Your task to perform on an android device: Open internet settings Image 0: 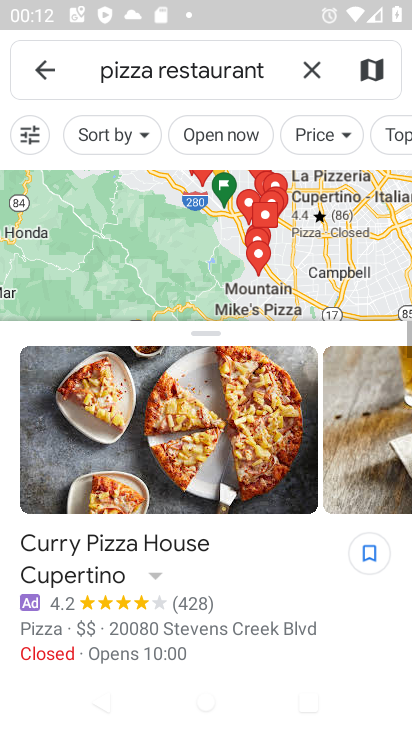
Step 0: press home button
Your task to perform on an android device: Open internet settings Image 1: 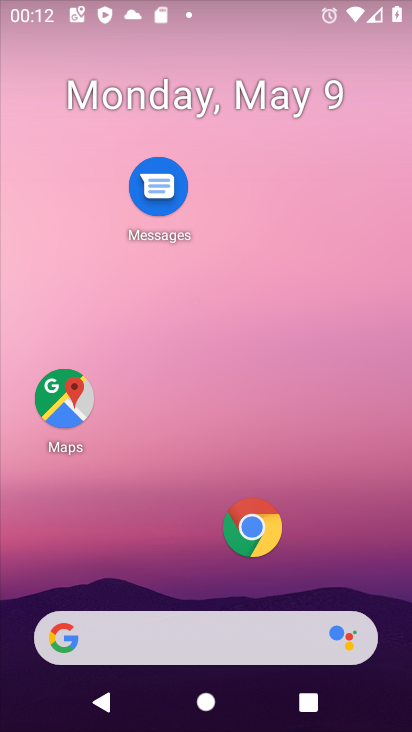
Step 1: drag from (180, 527) to (253, 18)
Your task to perform on an android device: Open internet settings Image 2: 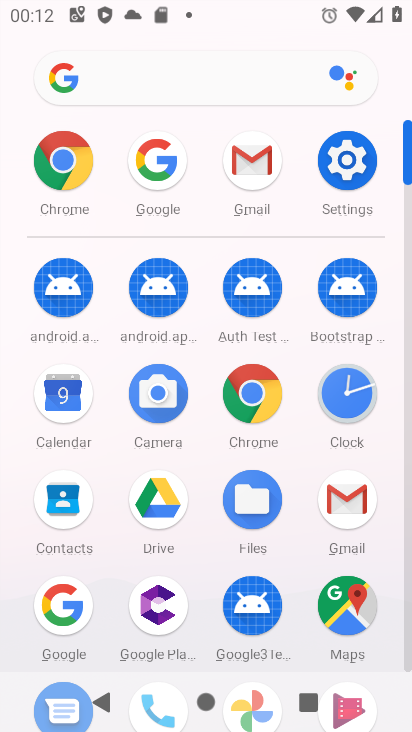
Step 2: click (348, 161)
Your task to perform on an android device: Open internet settings Image 3: 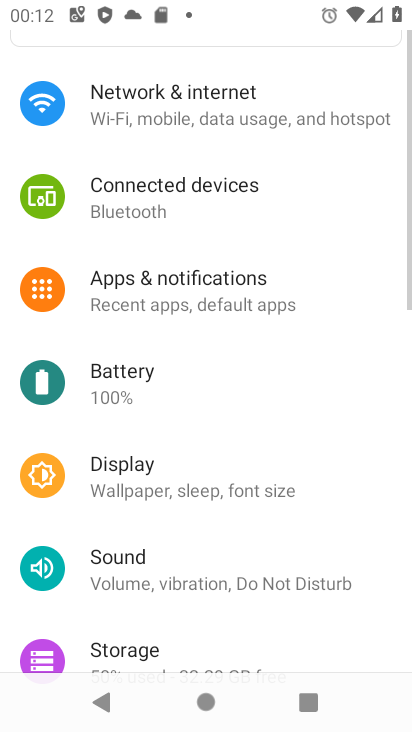
Step 3: click (186, 117)
Your task to perform on an android device: Open internet settings Image 4: 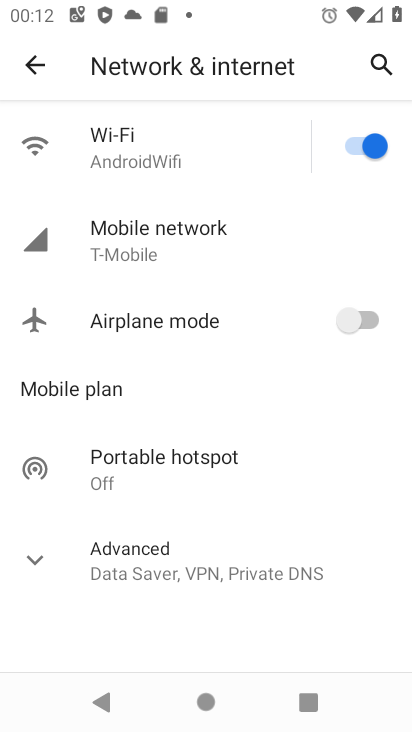
Step 4: click (145, 133)
Your task to perform on an android device: Open internet settings Image 5: 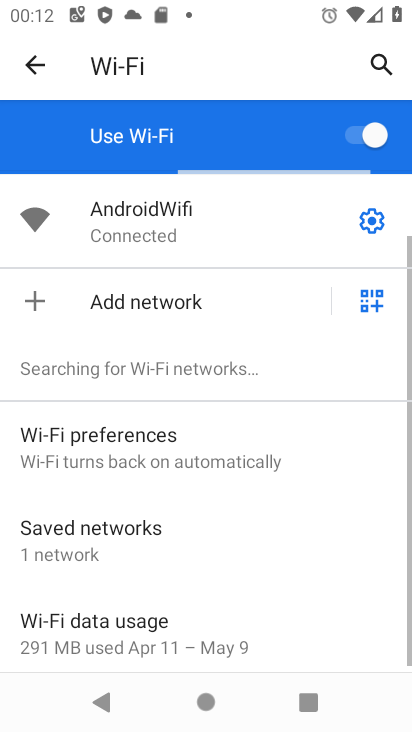
Step 5: click (147, 207)
Your task to perform on an android device: Open internet settings Image 6: 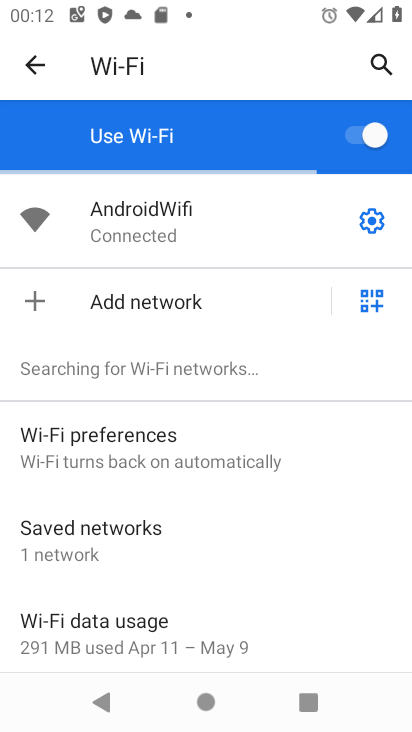
Step 6: click (205, 217)
Your task to perform on an android device: Open internet settings Image 7: 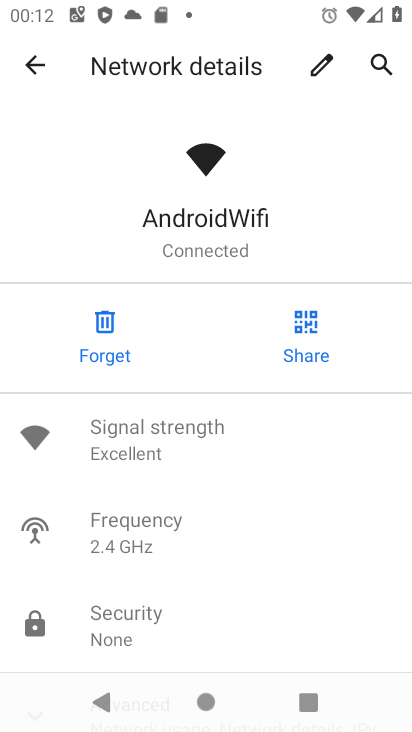
Step 7: task complete